Your task to perform on an android device: turn notification dots off Image 0: 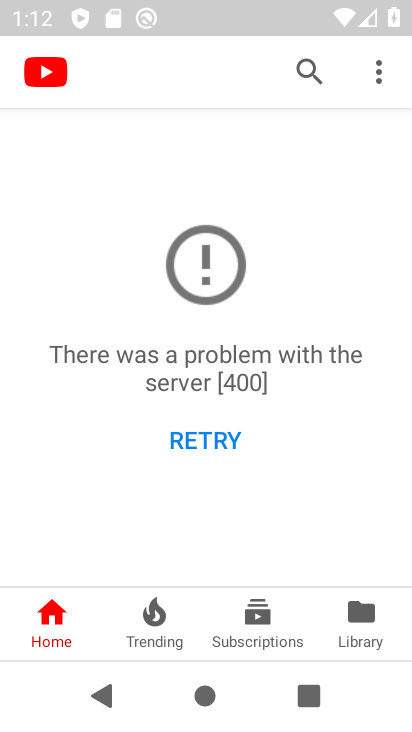
Step 0: press home button
Your task to perform on an android device: turn notification dots off Image 1: 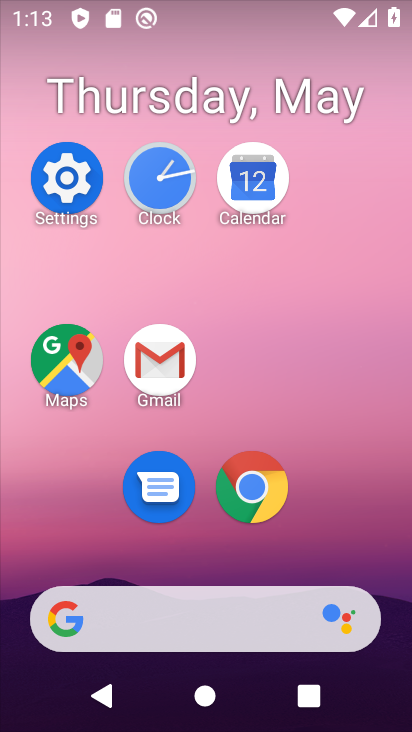
Step 1: click (90, 196)
Your task to perform on an android device: turn notification dots off Image 2: 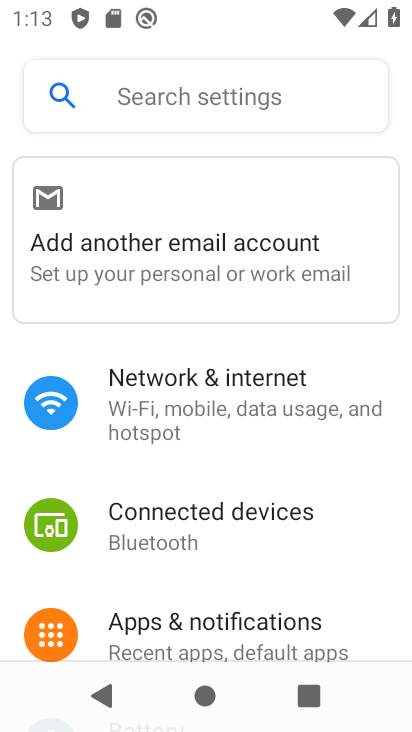
Step 2: click (249, 609)
Your task to perform on an android device: turn notification dots off Image 3: 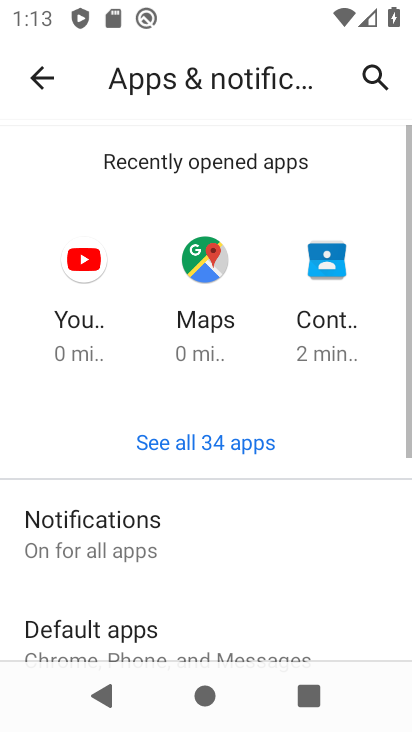
Step 3: click (193, 538)
Your task to perform on an android device: turn notification dots off Image 4: 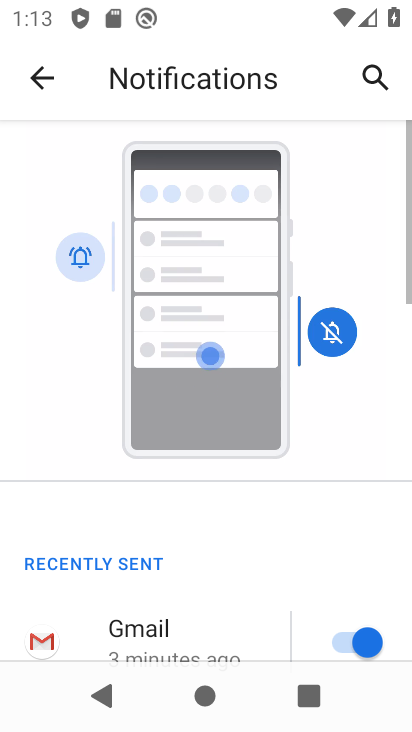
Step 4: drag from (193, 538) to (222, 136)
Your task to perform on an android device: turn notification dots off Image 5: 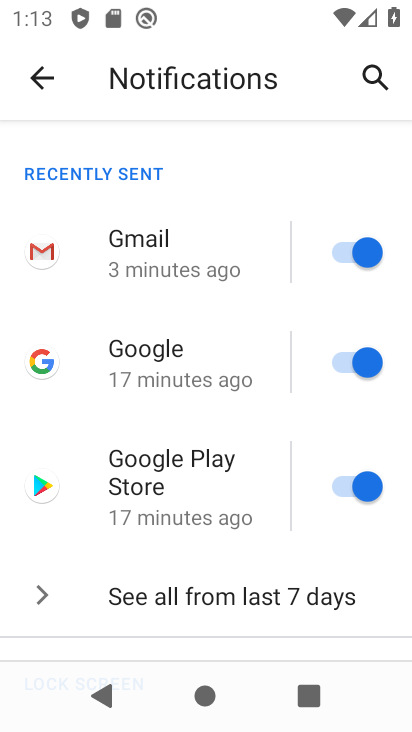
Step 5: drag from (218, 553) to (225, 165)
Your task to perform on an android device: turn notification dots off Image 6: 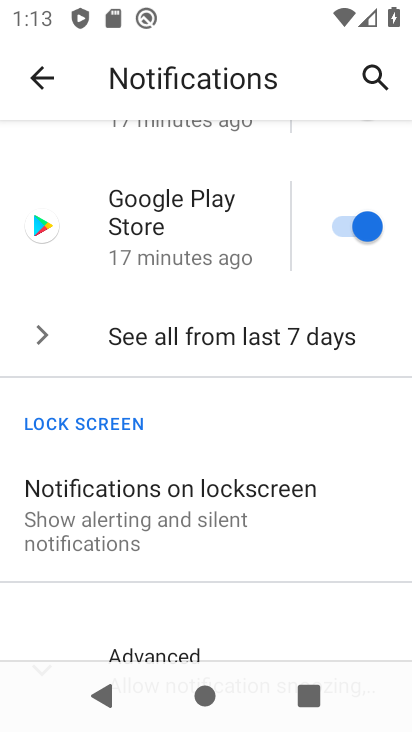
Step 6: drag from (213, 627) to (263, 280)
Your task to perform on an android device: turn notification dots off Image 7: 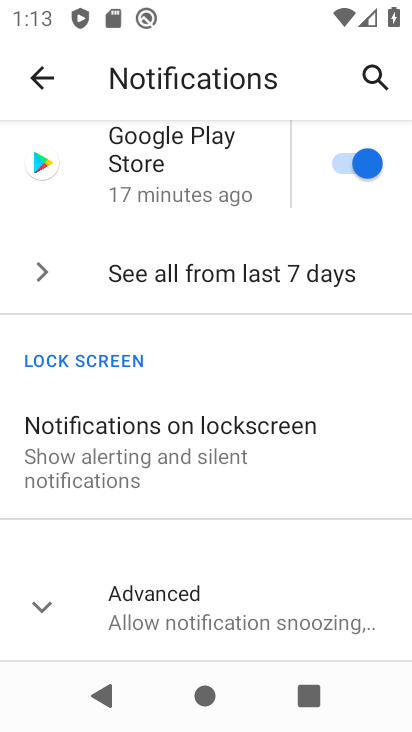
Step 7: click (244, 589)
Your task to perform on an android device: turn notification dots off Image 8: 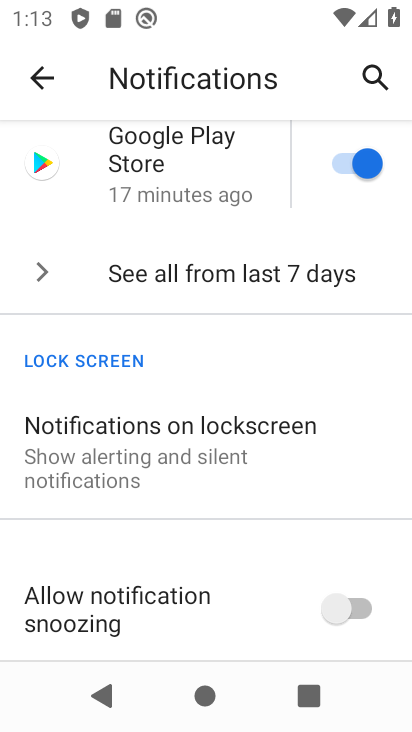
Step 8: drag from (242, 561) to (256, 233)
Your task to perform on an android device: turn notification dots off Image 9: 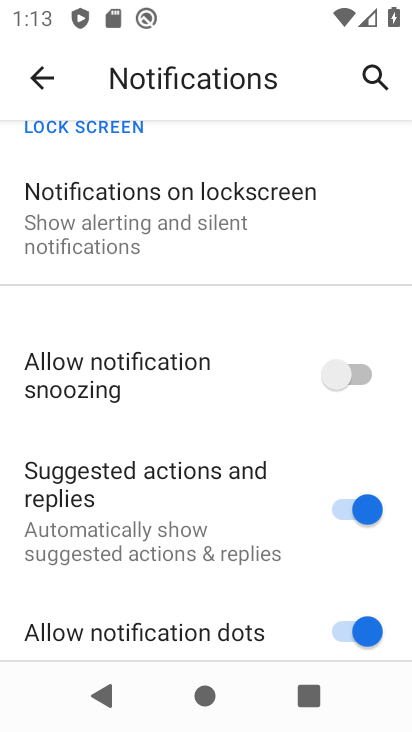
Step 9: click (356, 629)
Your task to perform on an android device: turn notification dots off Image 10: 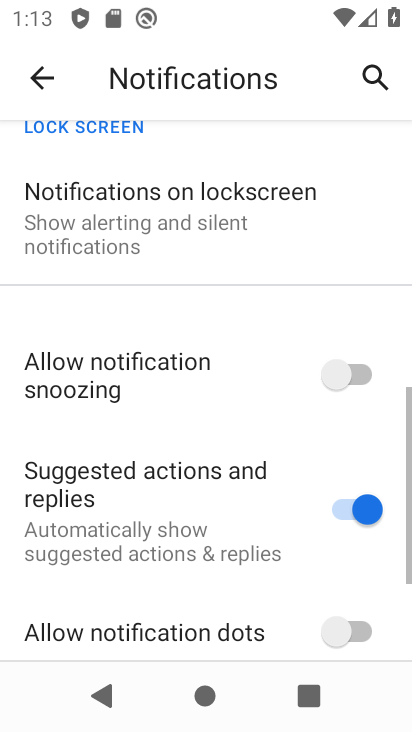
Step 10: task complete